Your task to perform on an android device: empty trash in google photos Image 0: 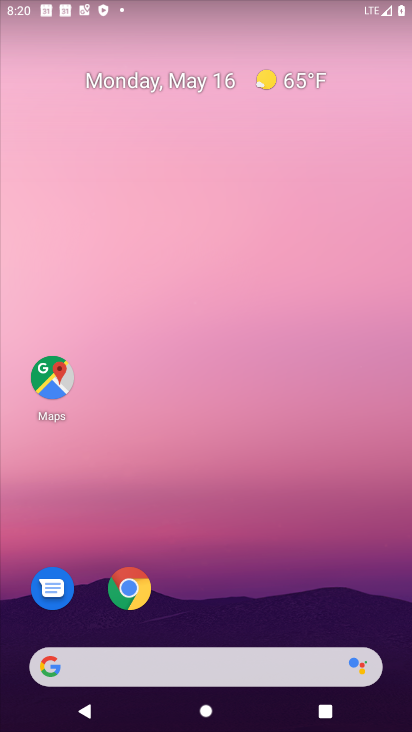
Step 0: drag from (247, 539) to (211, 65)
Your task to perform on an android device: empty trash in google photos Image 1: 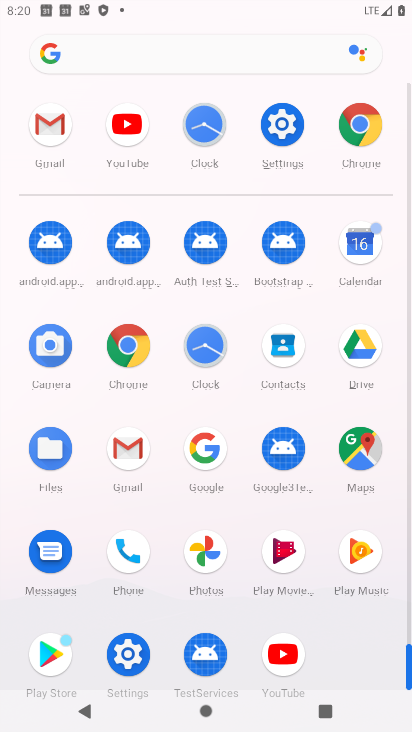
Step 1: click (202, 555)
Your task to perform on an android device: empty trash in google photos Image 2: 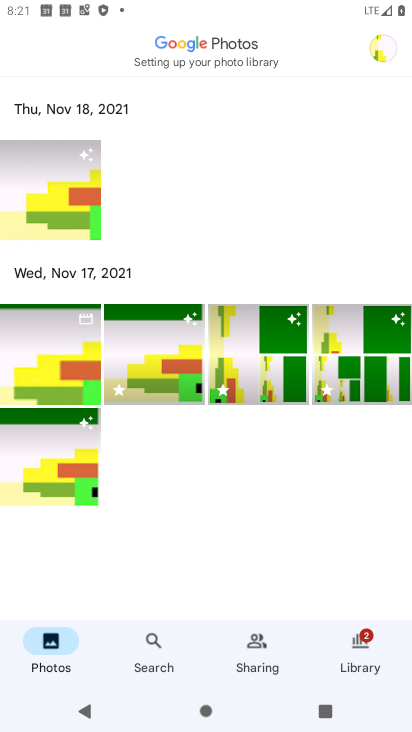
Step 2: click (355, 656)
Your task to perform on an android device: empty trash in google photos Image 3: 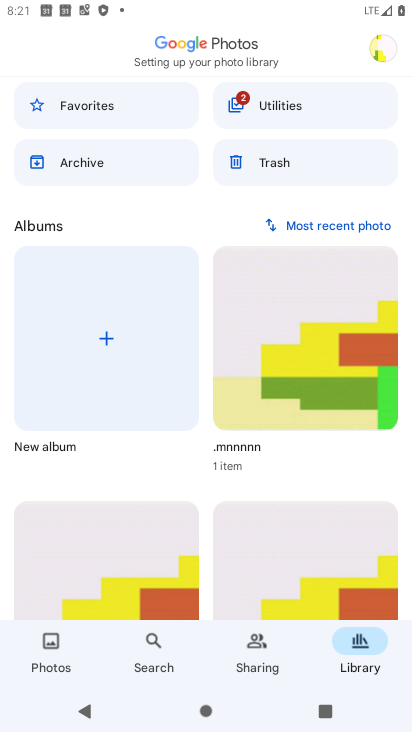
Step 3: click (258, 149)
Your task to perform on an android device: empty trash in google photos Image 4: 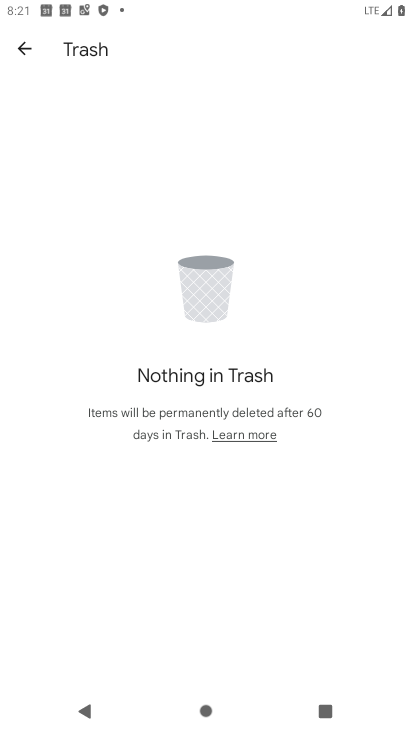
Step 4: task complete